Your task to perform on an android device: Open the Play Movies app and select the watchlist tab. Image 0: 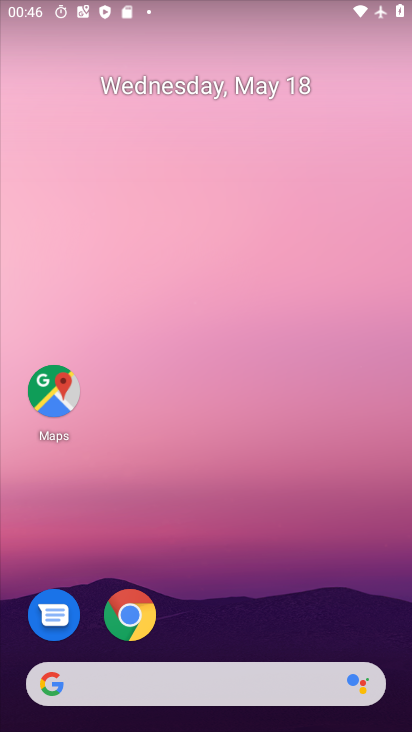
Step 0: drag from (236, 607) to (222, 256)
Your task to perform on an android device: Open the Play Movies app and select the watchlist tab. Image 1: 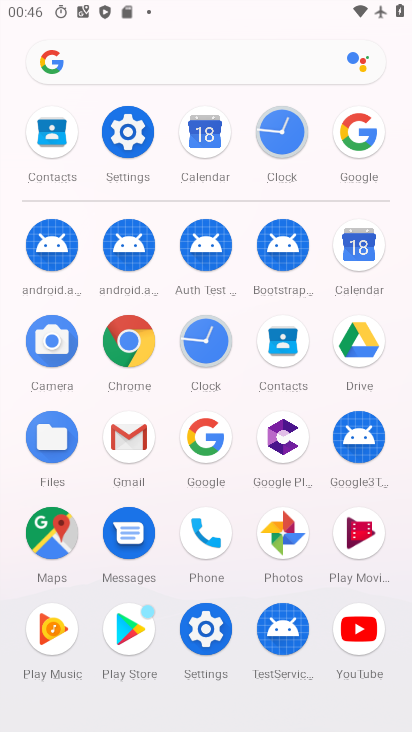
Step 1: click (339, 512)
Your task to perform on an android device: Open the Play Movies app and select the watchlist tab. Image 2: 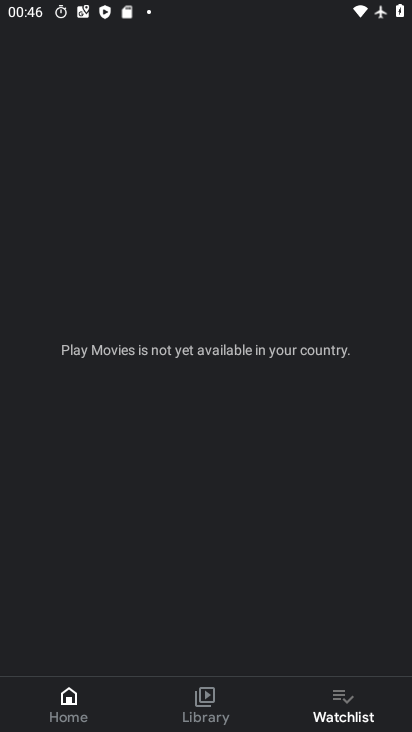
Step 2: click (327, 679)
Your task to perform on an android device: Open the Play Movies app and select the watchlist tab. Image 3: 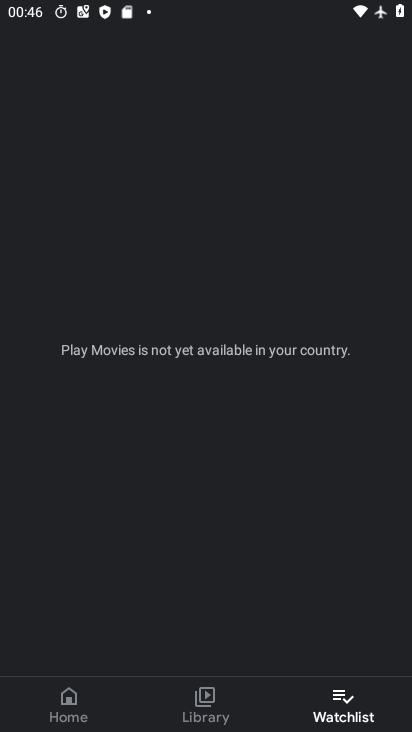
Step 3: task complete